Your task to perform on an android device: turn off smart reply in the gmail app Image 0: 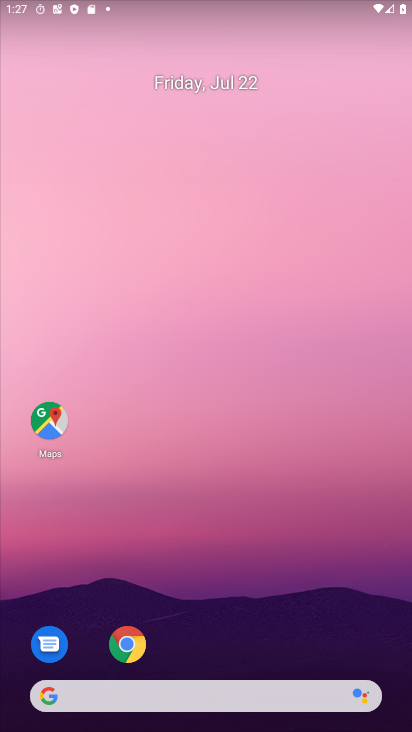
Step 0: drag from (161, 668) to (198, 165)
Your task to perform on an android device: turn off smart reply in the gmail app Image 1: 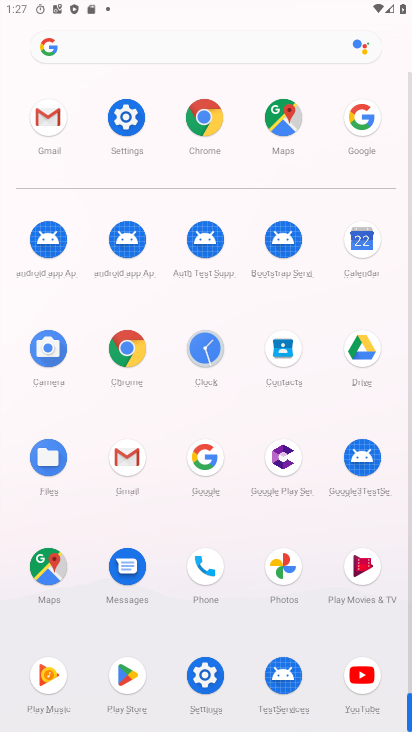
Step 1: click (131, 475)
Your task to perform on an android device: turn off smart reply in the gmail app Image 2: 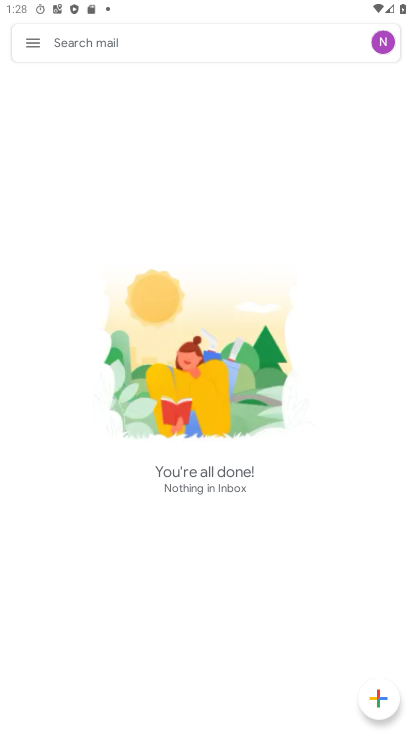
Step 2: click (30, 40)
Your task to perform on an android device: turn off smart reply in the gmail app Image 3: 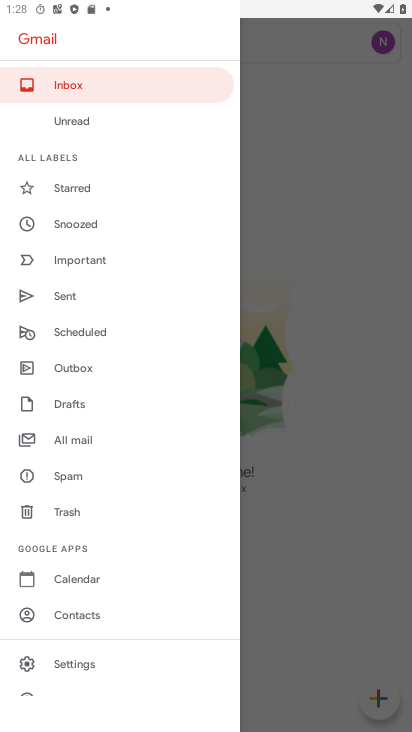
Step 3: click (86, 665)
Your task to perform on an android device: turn off smart reply in the gmail app Image 4: 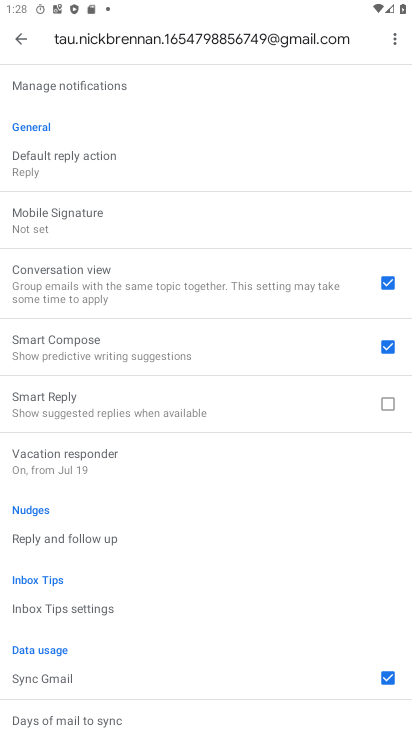
Step 4: task complete